Your task to perform on an android device: empty trash in google photos Image 0: 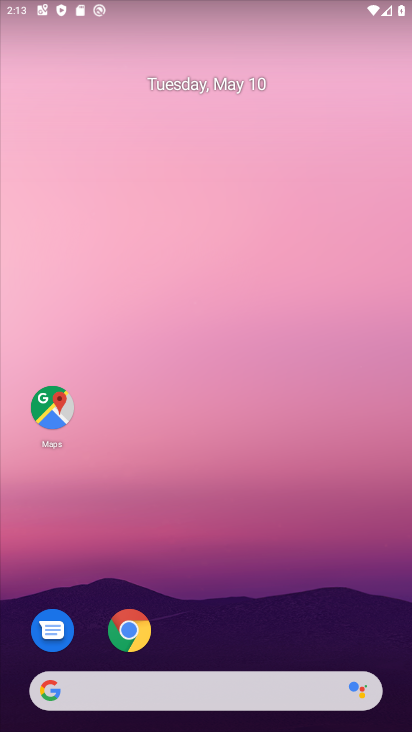
Step 0: drag from (185, 409) to (93, 76)
Your task to perform on an android device: empty trash in google photos Image 1: 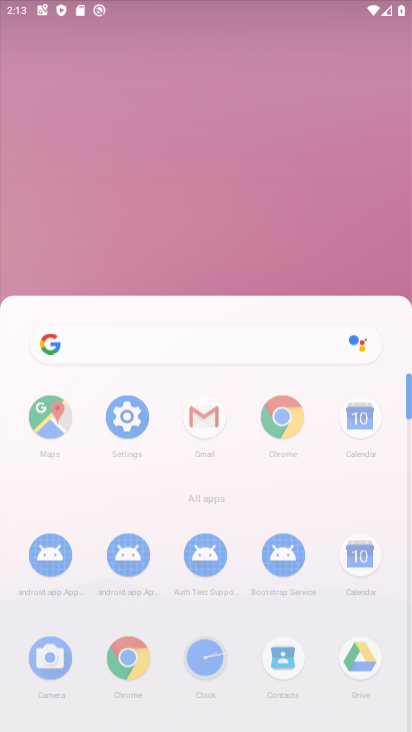
Step 1: drag from (224, 522) to (125, 73)
Your task to perform on an android device: empty trash in google photos Image 2: 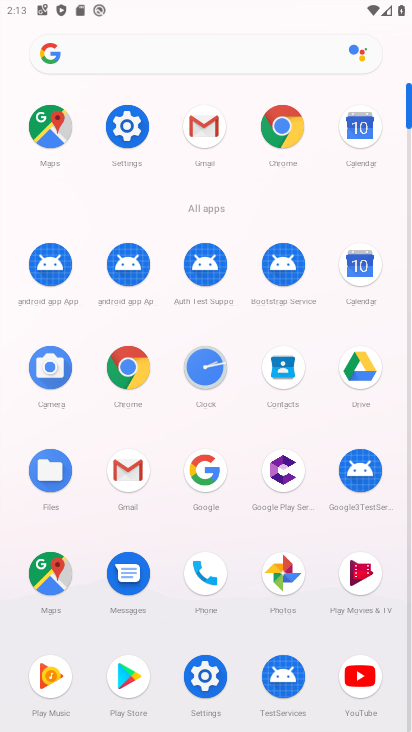
Step 2: click (280, 567)
Your task to perform on an android device: empty trash in google photos Image 3: 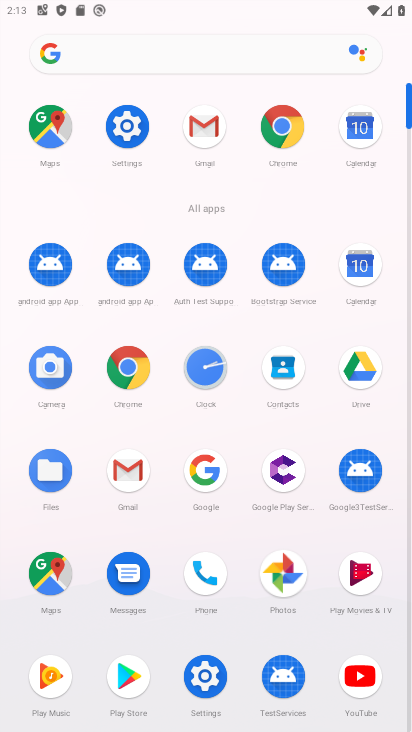
Step 3: click (279, 584)
Your task to perform on an android device: empty trash in google photos Image 4: 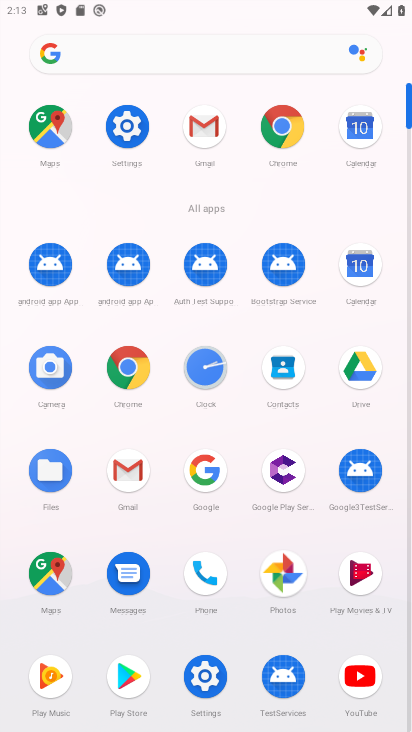
Step 4: click (279, 584)
Your task to perform on an android device: empty trash in google photos Image 5: 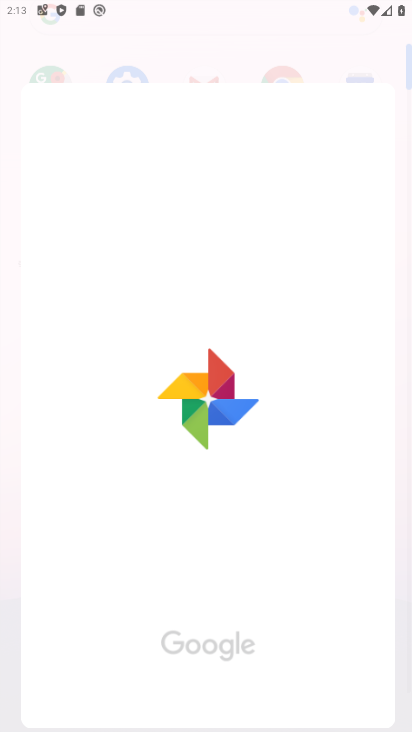
Step 5: click (282, 584)
Your task to perform on an android device: empty trash in google photos Image 6: 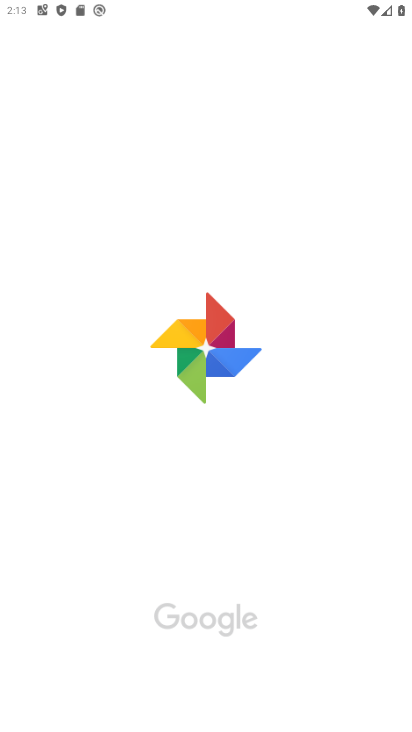
Step 6: click (278, 573)
Your task to perform on an android device: empty trash in google photos Image 7: 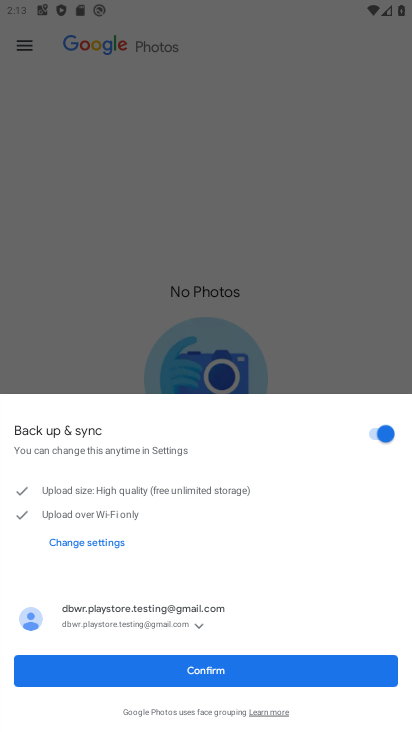
Step 7: click (228, 674)
Your task to perform on an android device: empty trash in google photos Image 8: 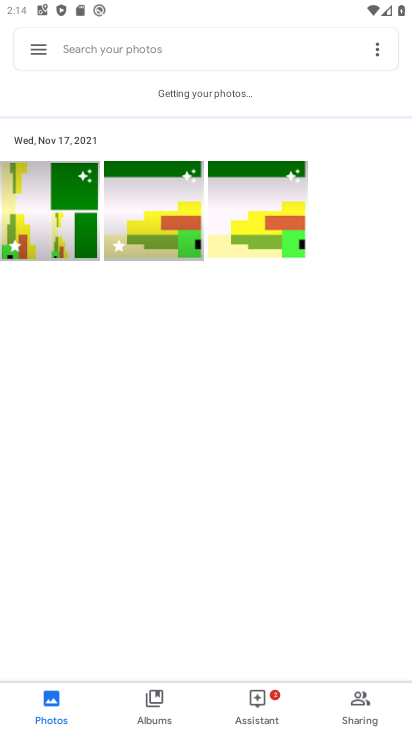
Step 8: click (39, 53)
Your task to perform on an android device: empty trash in google photos Image 9: 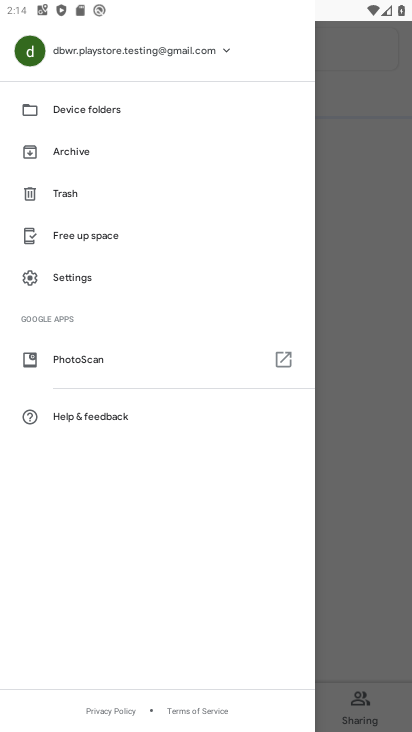
Step 9: click (66, 190)
Your task to perform on an android device: empty trash in google photos Image 10: 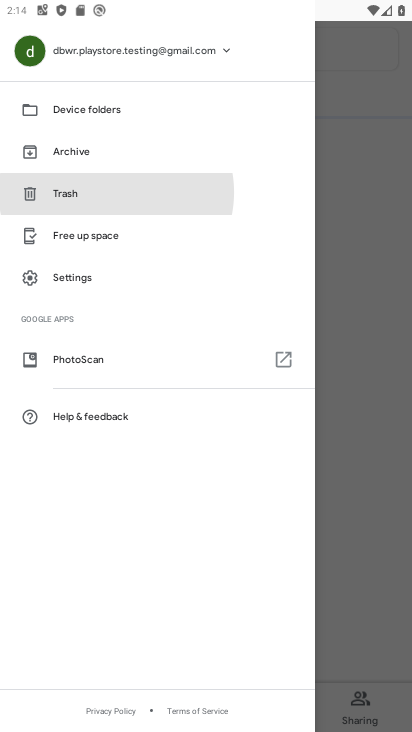
Step 10: click (66, 190)
Your task to perform on an android device: empty trash in google photos Image 11: 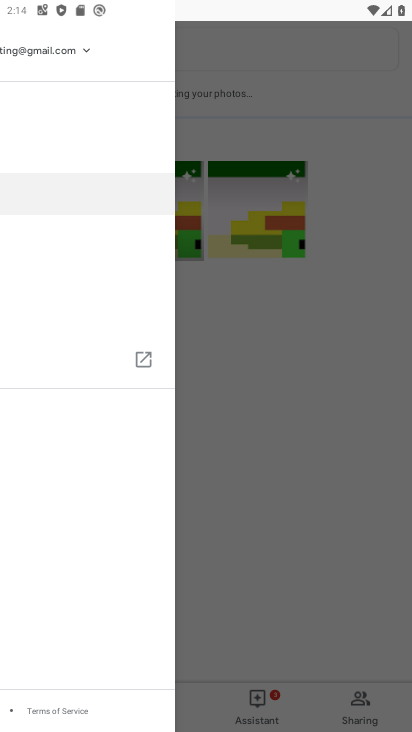
Step 11: click (66, 190)
Your task to perform on an android device: empty trash in google photos Image 12: 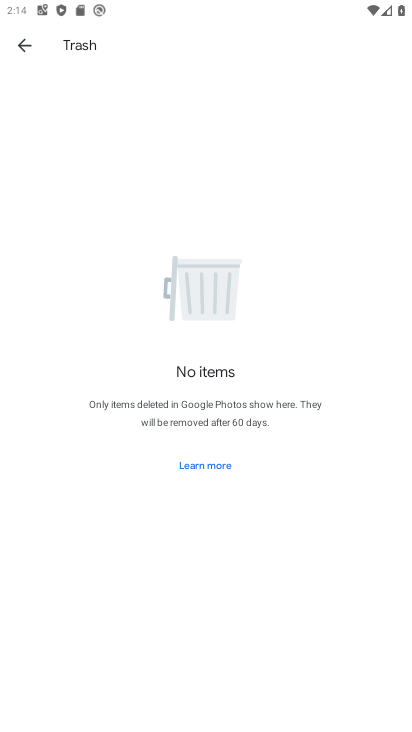
Step 12: task complete